Your task to perform on an android device: turn on bluetooth scan Image 0: 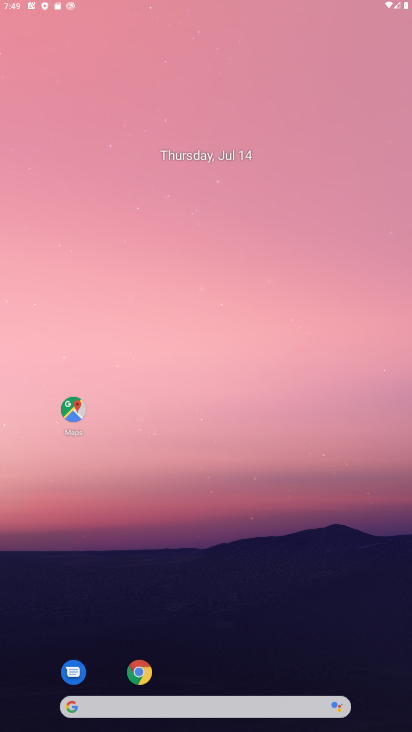
Step 0: click (272, 412)
Your task to perform on an android device: turn on bluetooth scan Image 1: 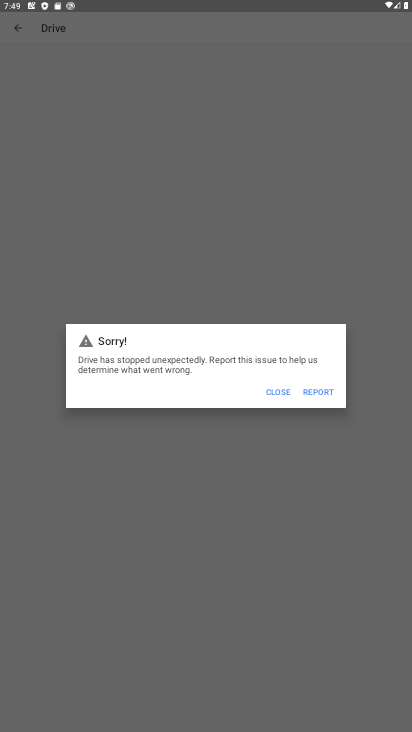
Step 1: drag from (323, 486) to (392, 353)
Your task to perform on an android device: turn on bluetooth scan Image 2: 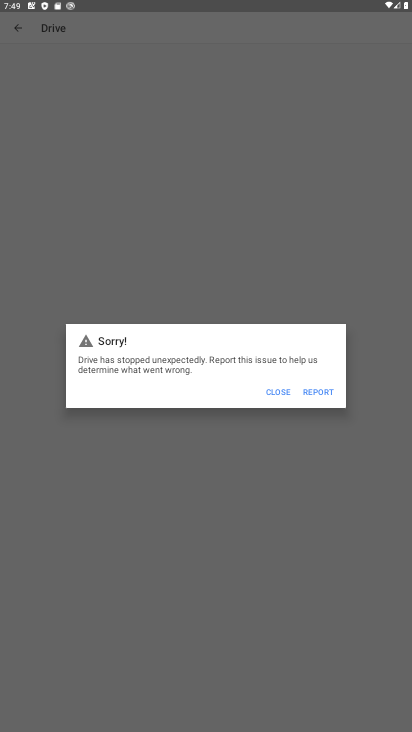
Step 2: press home button
Your task to perform on an android device: turn on bluetooth scan Image 3: 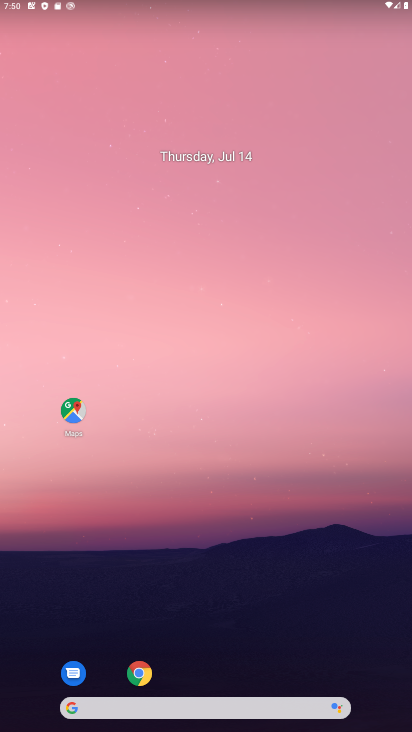
Step 3: drag from (241, 677) to (269, 579)
Your task to perform on an android device: turn on bluetooth scan Image 4: 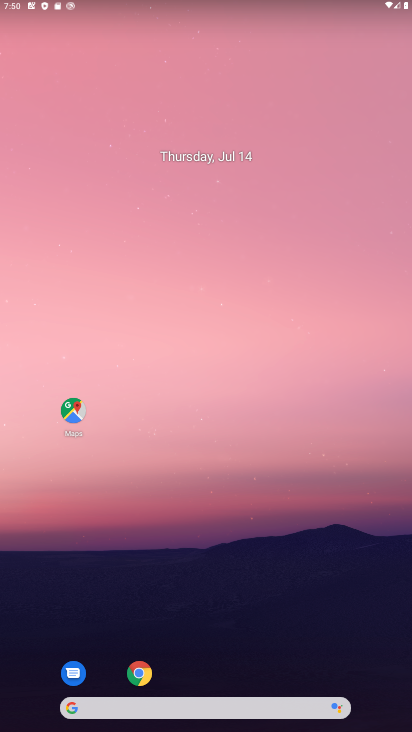
Step 4: drag from (189, 633) to (200, 41)
Your task to perform on an android device: turn on bluetooth scan Image 5: 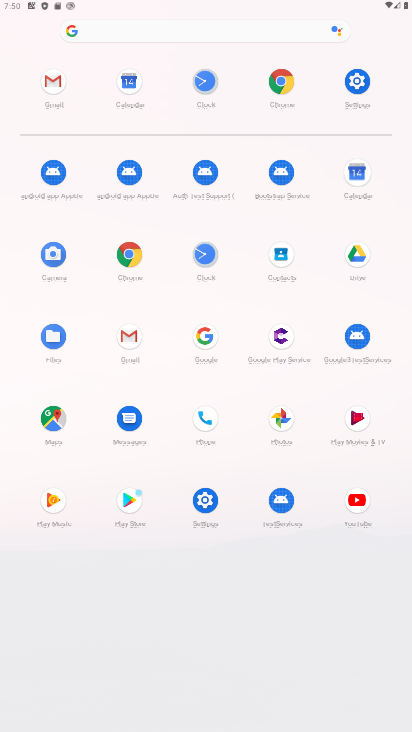
Step 5: click (196, 508)
Your task to perform on an android device: turn on bluetooth scan Image 6: 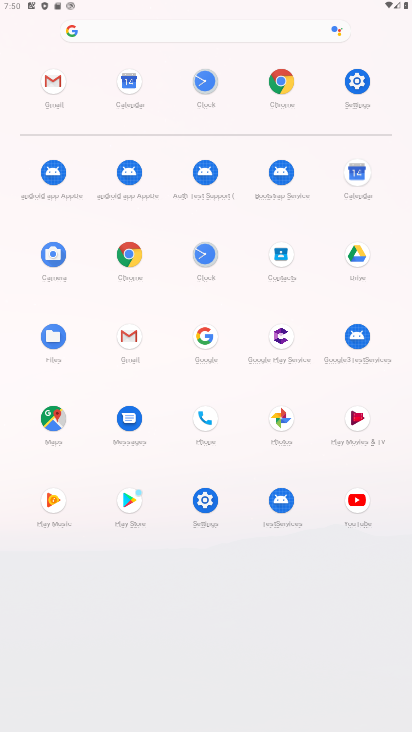
Step 6: click (196, 508)
Your task to perform on an android device: turn on bluetooth scan Image 7: 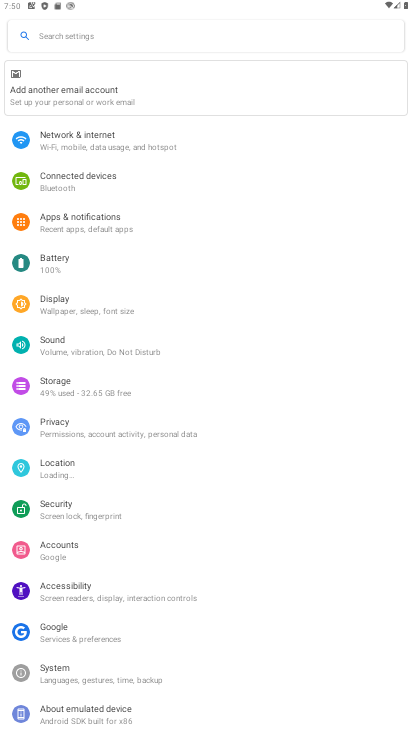
Step 7: click (90, 469)
Your task to perform on an android device: turn on bluetooth scan Image 8: 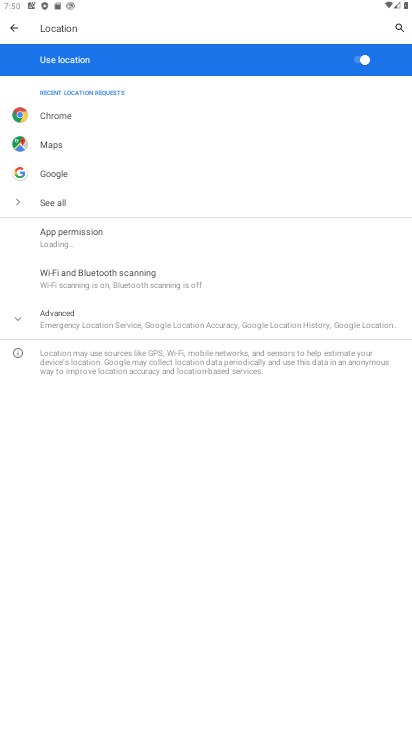
Step 8: click (127, 318)
Your task to perform on an android device: turn on bluetooth scan Image 9: 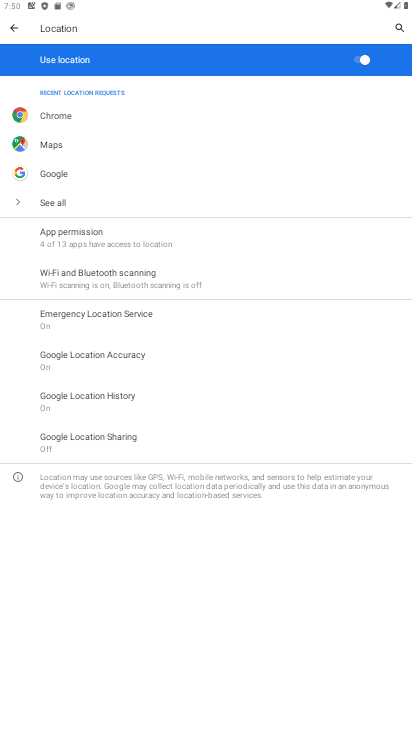
Step 9: click (137, 293)
Your task to perform on an android device: turn on bluetooth scan Image 10: 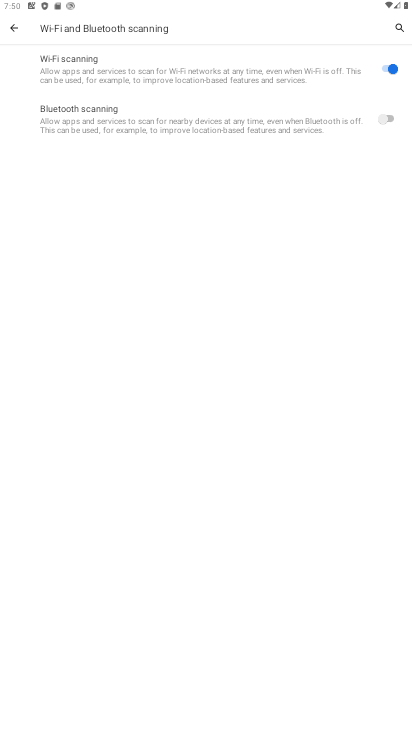
Step 10: click (332, 118)
Your task to perform on an android device: turn on bluetooth scan Image 11: 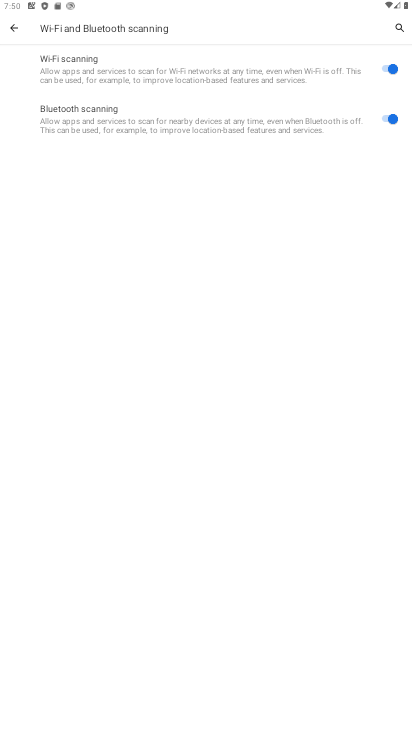
Step 11: task complete